Your task to perform on an android device: Open my contact list Image 0: 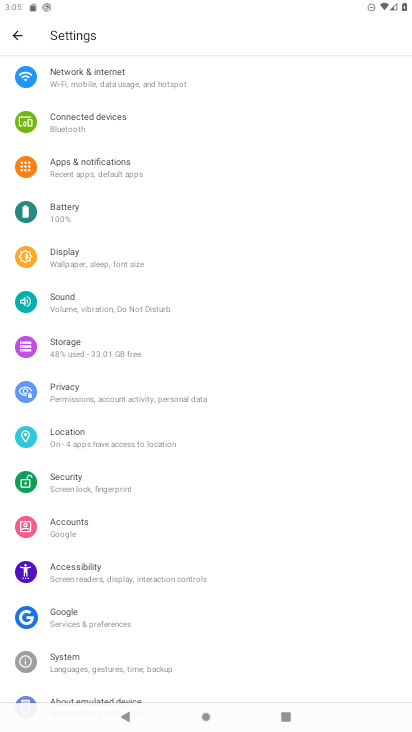
Step 0: press home button
Your task to perform on an android device: Open my contact list Image 1: 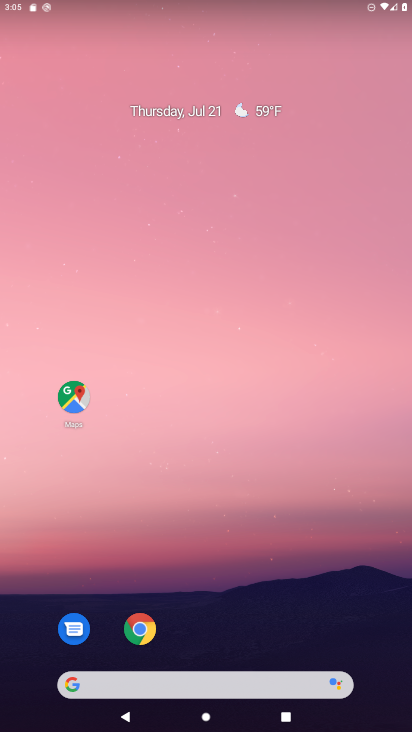
Step 1: drag from (234, 671) to (234, 127)
Your task to perform on an android device: Open my contact list Image 2: 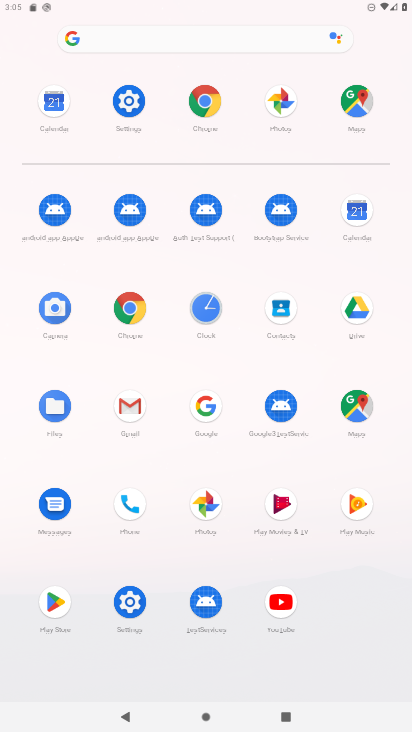
Step 2: click (286, 307)
Your task to perform on an android device: Open my contact list Image 3: 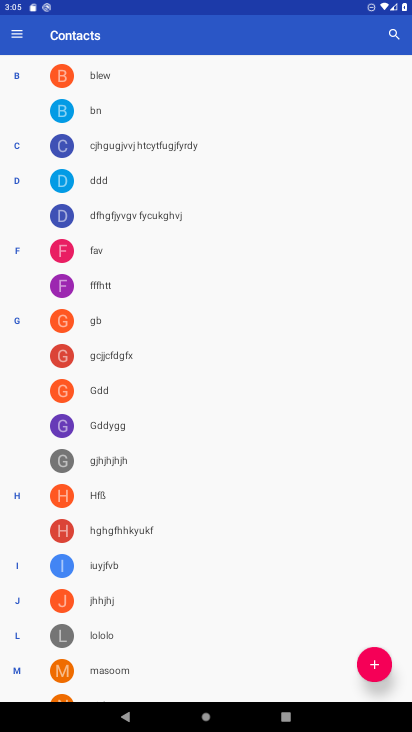
Step 3: task complete